Your task to perform on an android device: Go to settings Image 0: 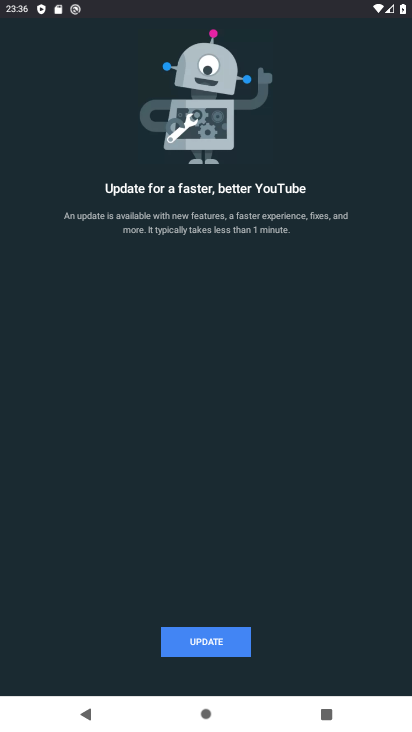
Step 0: press home button
Your task to perform on an android device: Go to settings Image 1: 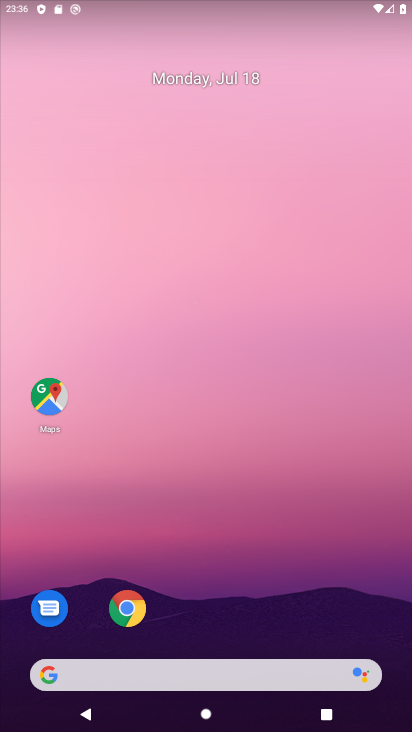
Step 1: drag from (196, 675) to (236, 176)
Your task to perform on an android device: Go to settings Image 2: 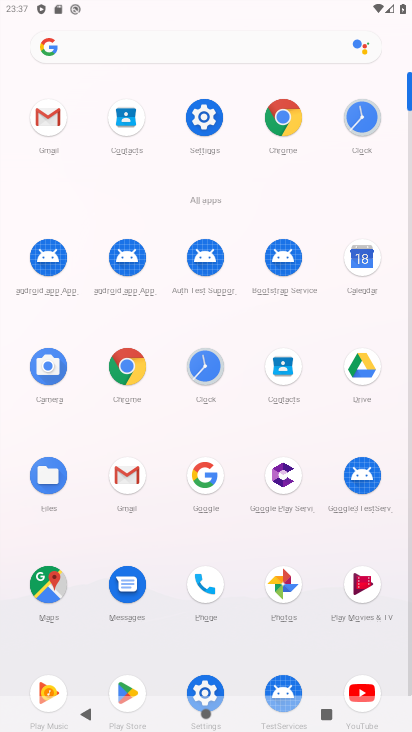
Step 2: click (204, 118)
Your task to perform on an android device: Go to settings Image 3: 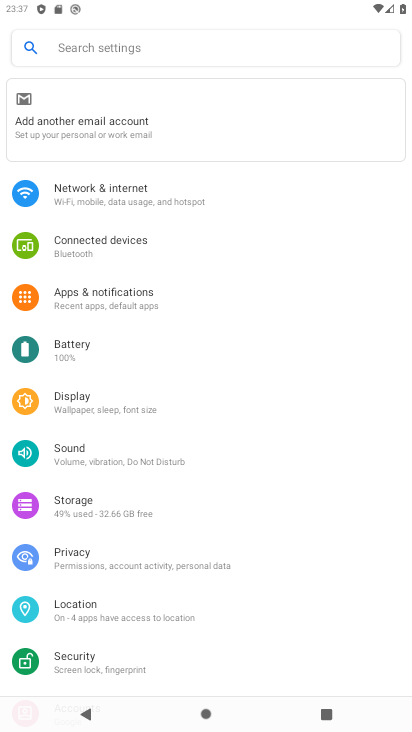
Step 3: press home button
Your task to perform on an android device: Go to settings Image 4: 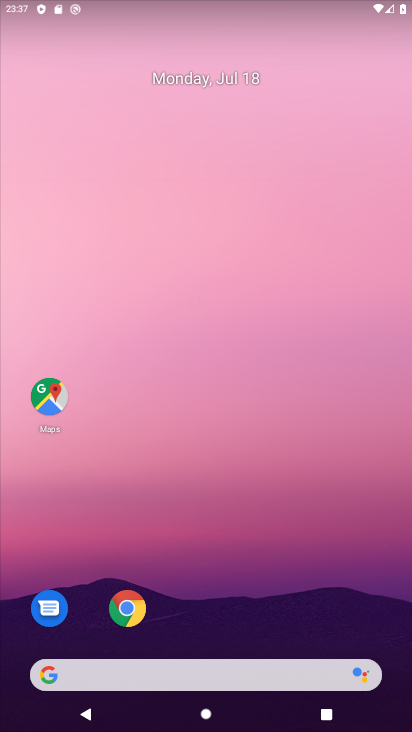
Step 4: drag from (188, 635) to (203, 66)
Your task to perform on an android device: Go to settings Image 5: 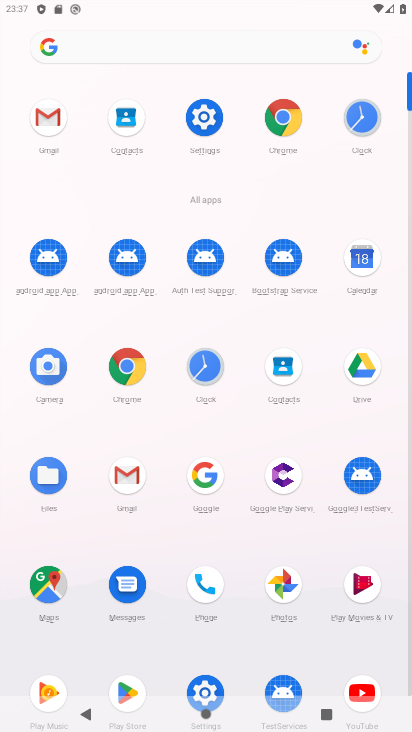
Step 5: click (204, 117)
Your task to perform on an android device: Go to settings Image 6: 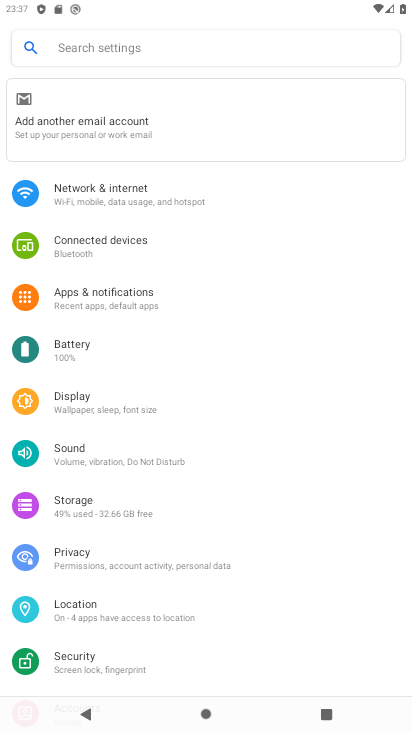
Step 6: task complete